Your task to perform on an android device: Open location settings Image 0: 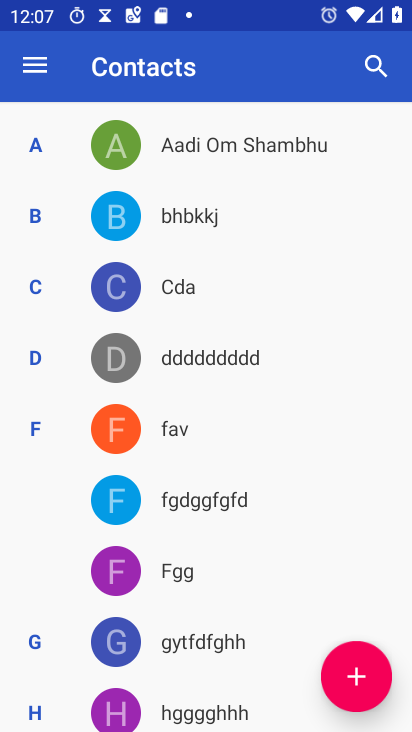
Step 0: press home button
Your task to perform on an android device: Open location settings Image 1: 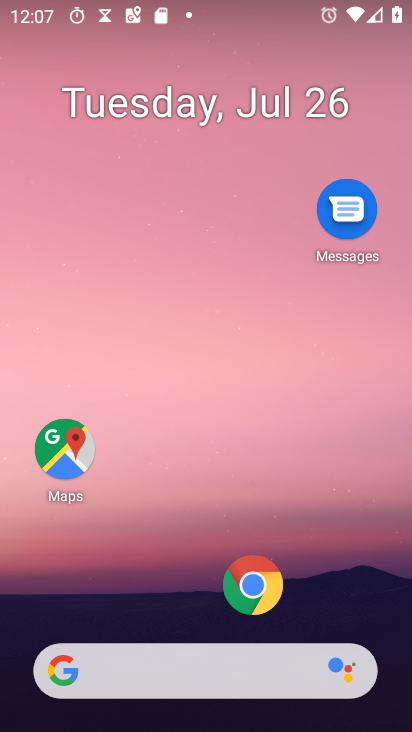
Step 1: drag from (223, 674) to (367, 120)
Your task to perform on an android device: Open location settings Image 2: 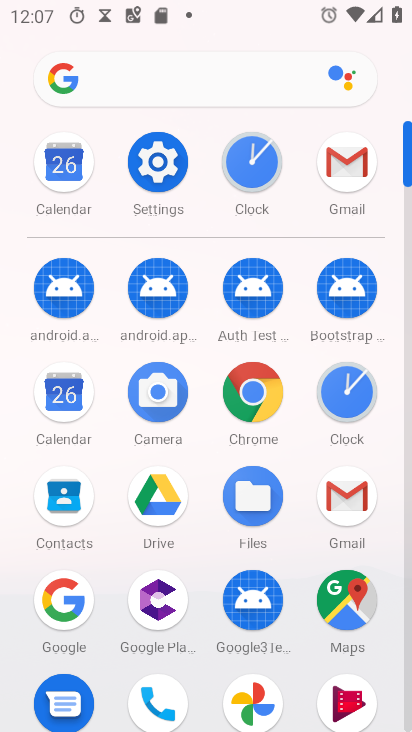
Step 2: click (156, 163)
Your task to perform on an android device: Open location settings Image 3: 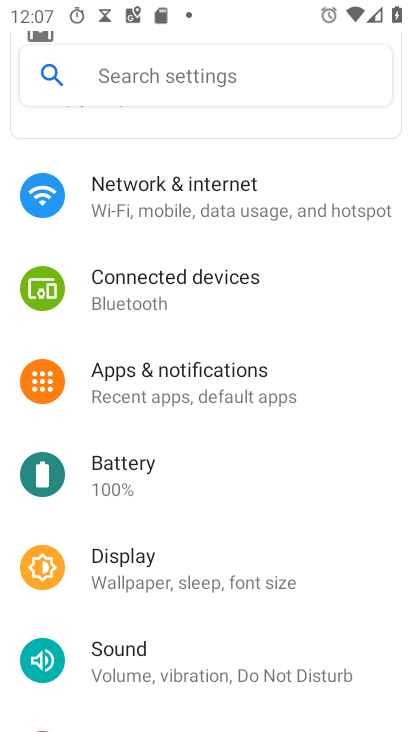
Step 3: drag from (285, 612) to (349, 165)
Your task to perform on an android device: Open location settings Image 4: 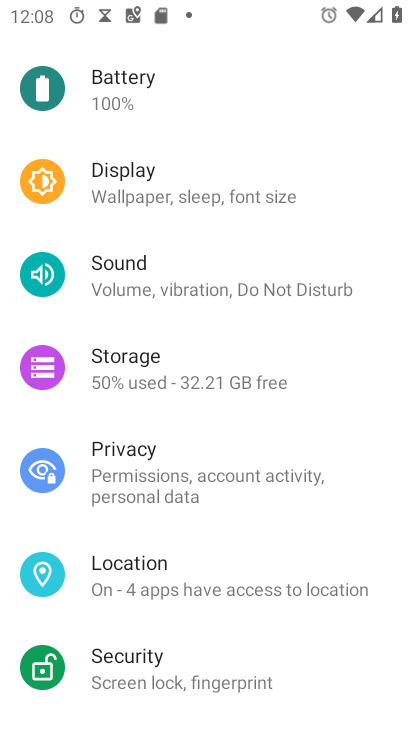
Step 4: click (176, 575)
Your task to perform on an android device: Open location settings Image 5: 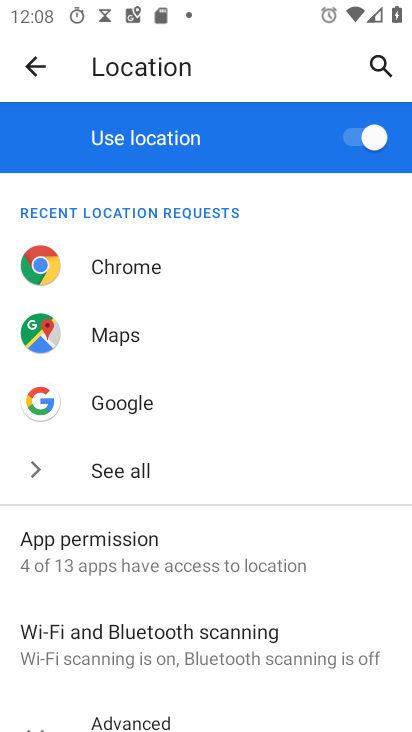
Step 5: task complete